Your task to perform on an android device: set the stopwatch Image 0: 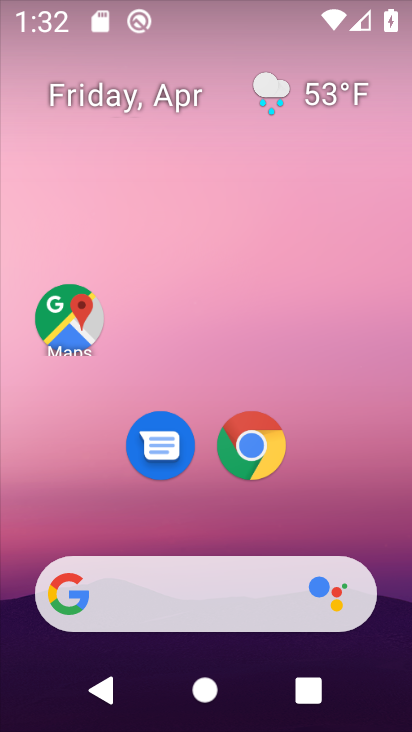
Step 0: drag from (376, 493) to (371, 309)
Your task to perform on an android device: set the stopwatch Image 1: 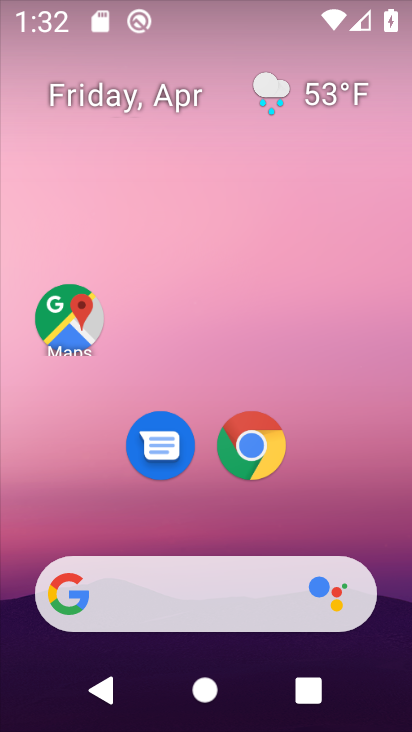
Step 1: click (371, 299)
Your task to perform on an android device: set the stopwatch Image 2: 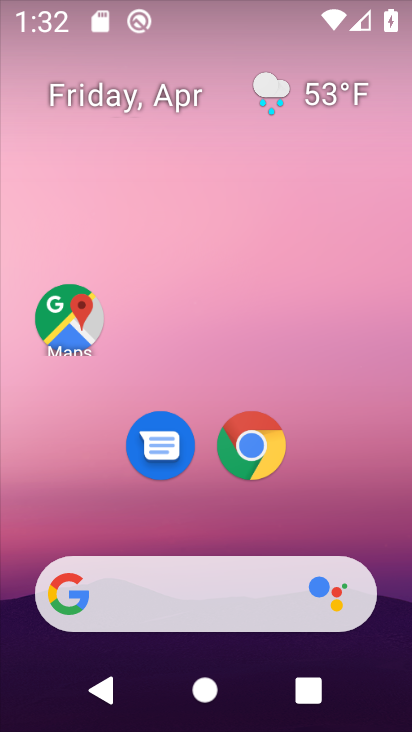
Step 2: drag from (355, 487) to (336, 176)
Your task to perform on an android device: set the stopwatch Image 3: 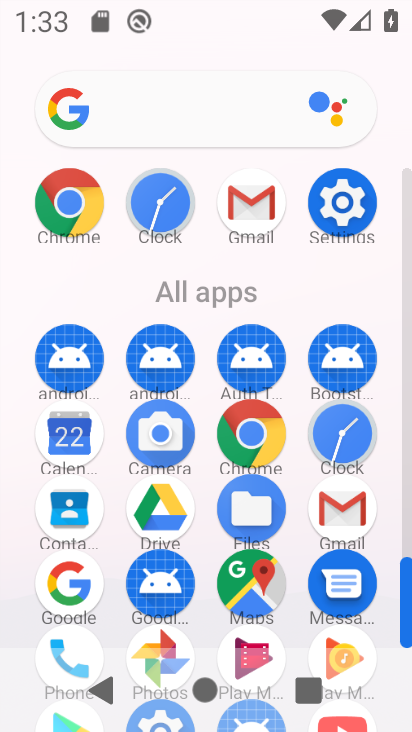
Step 3: click (359, 426)
Your task to perform on an android device: set the stopwatch Image 4: 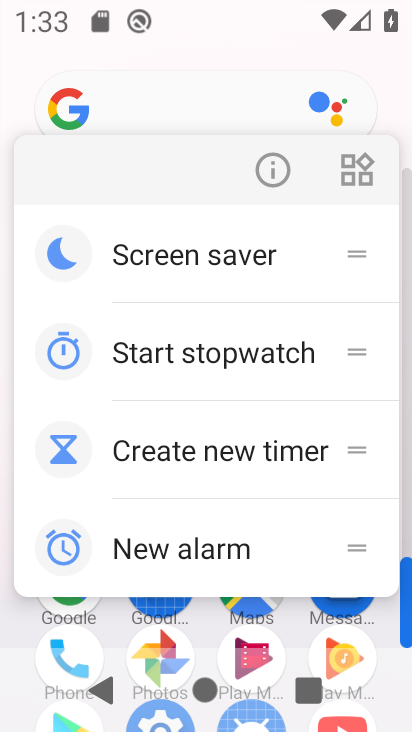
Step 4: drag from (404, 525) to (409, 423)
Your task to perform on an android device: set the stopwatch Image 5: 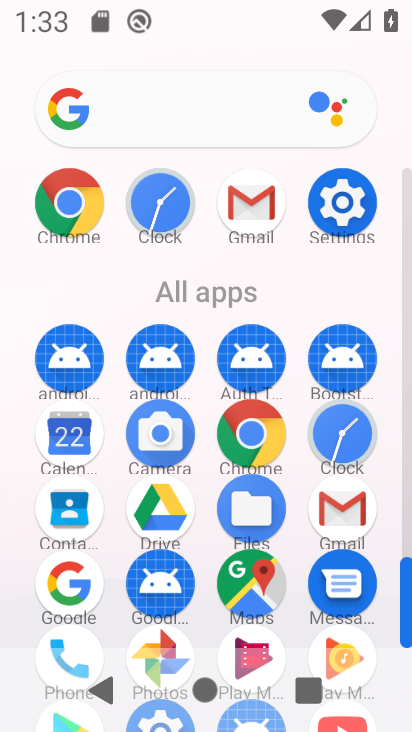
Step 5: click (334, 437)
Your task to perform on an android device: set the stopwatch Image 6: 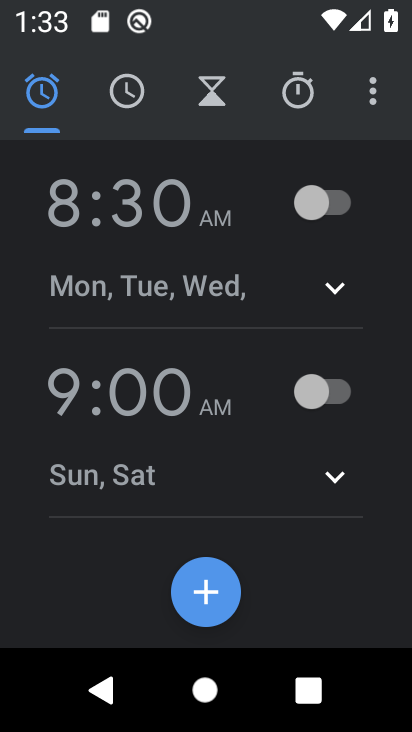
Step 6: click (293, 102)
Your task to perform on an android device: set the stopwatch Image 7: 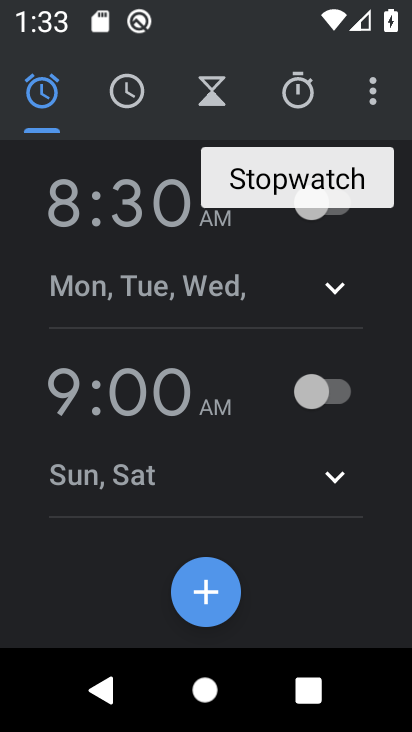
Step 7: click (293, 102)
Your task to perform on an android device: set the stopwatch Image 8: 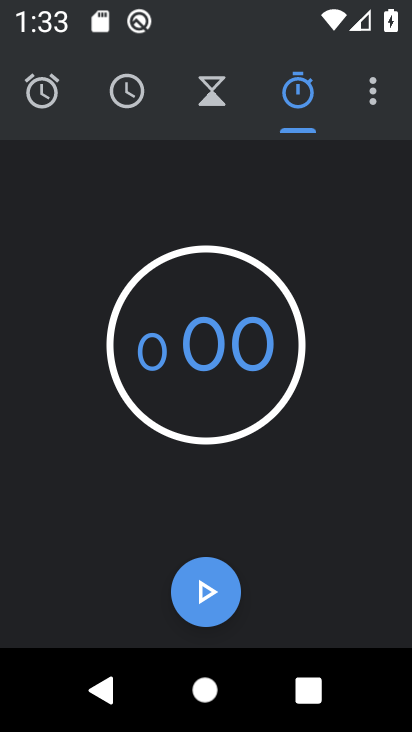
Step 8: click (223, 585)
Your task to perform on an android device: set the stopwatch Image 9: 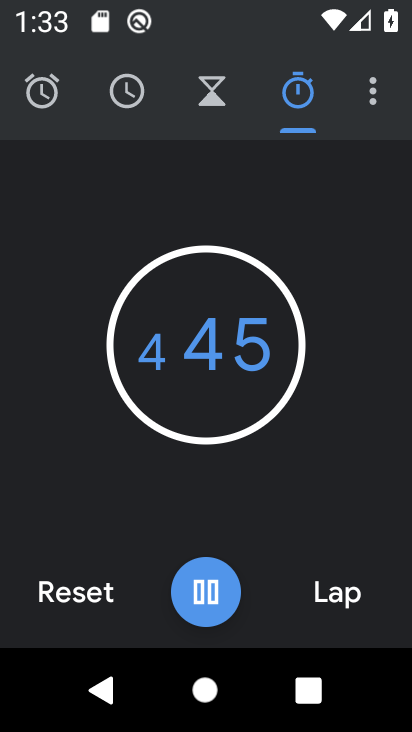
Step 9: task complete